Your task to perform on an android device: Show me the alarms in the clock app Image 0: 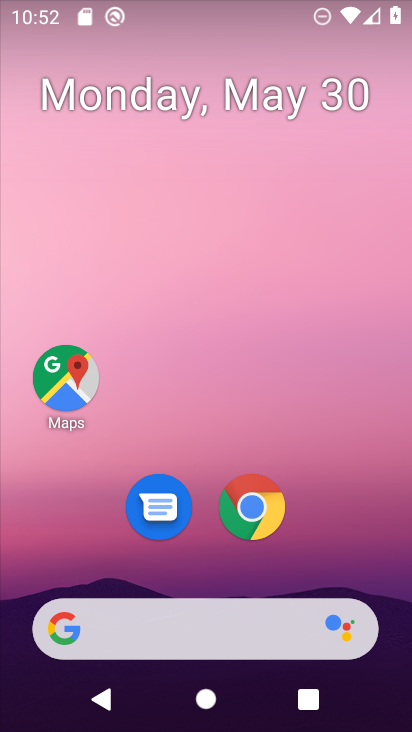
Step 0: drag from (398, 612) to (266, 10)
Your task to perform on an android device: Show me the alarms in the clock app Image 1: 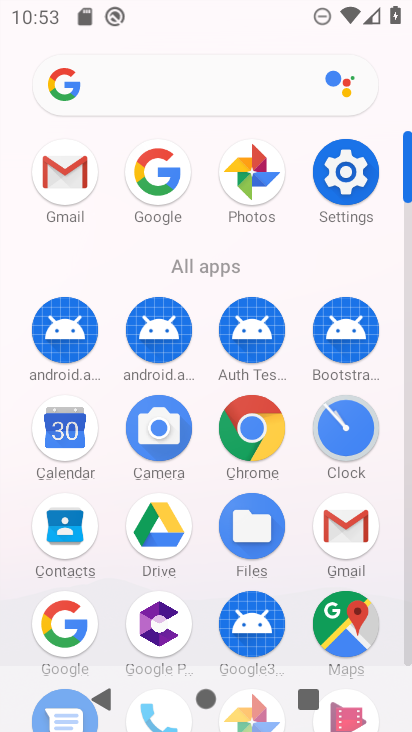
Step 1: click (340, 427)
Your task to perform on an android device: Show me the alarms in the clock app Image 2: 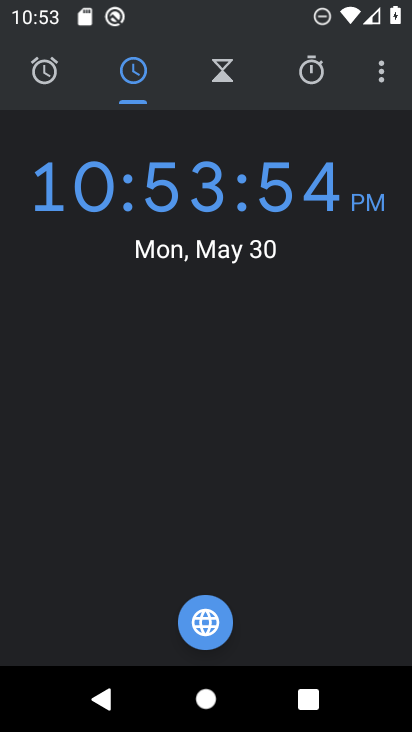
Step 2: click (44, 92)
Your task to perform on an android device: Show me the alarms in the clock app Image 3: 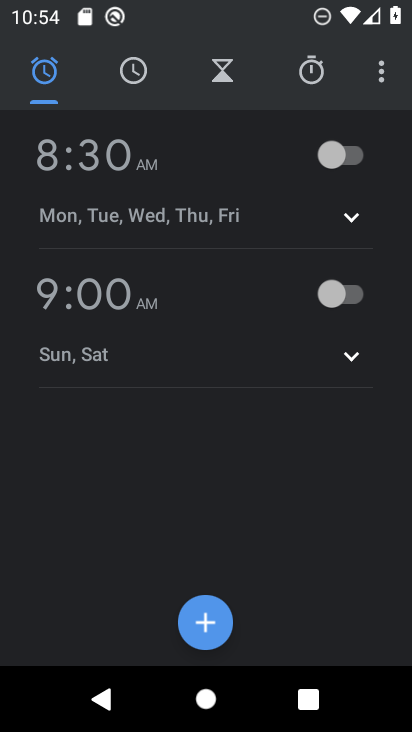
Step 3: task complete